Your task to perform on an android device: turn off javascript in the chrome app Image 0: 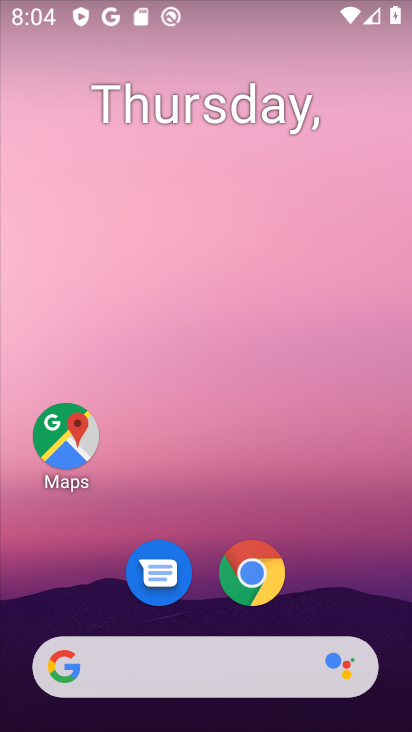
Step 0: drag from (343, 602) to (338, 201)
Your task to perform on an android device: turn off javascript in the chrome app Image 1: 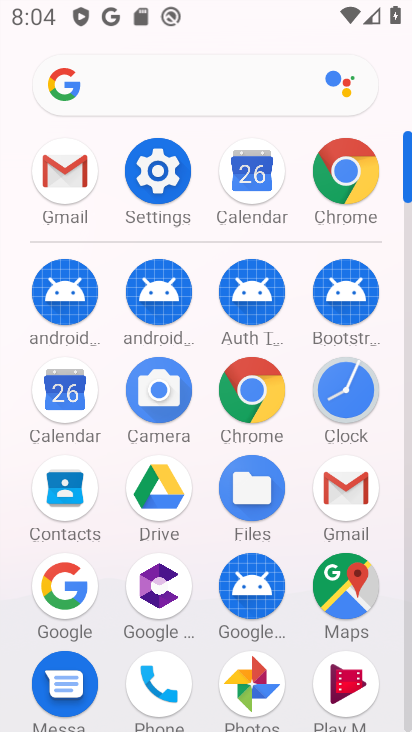
Step 1: click (253, 378)
Your task to perform on an android device: turn off javascript in the chrome app Image 2: 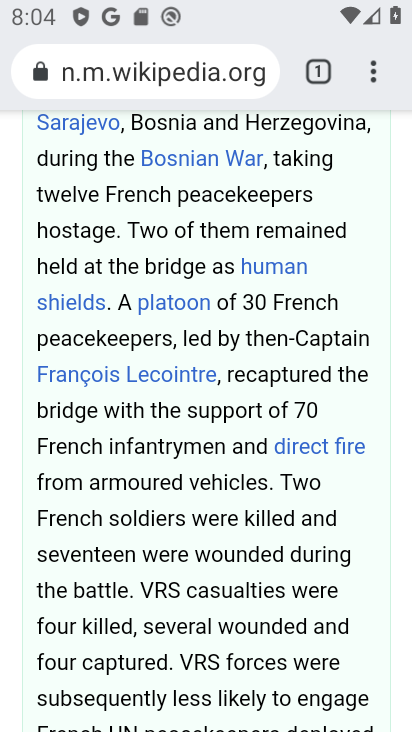
Step 2: drag from (367, 88) to (153, 560)
Your task to perform on an android device: turn off javascript in the chrome app Image 3: 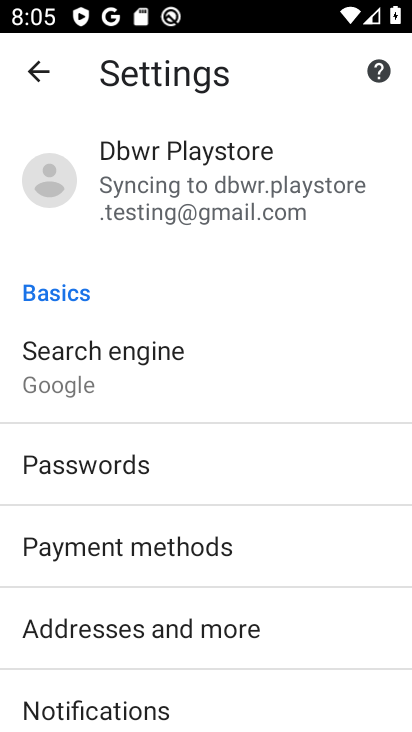
Step 3: drag from (235, 649) to (260, 312)
Your task to perform on an android device: turn off javascript in the chrome app Image 4: 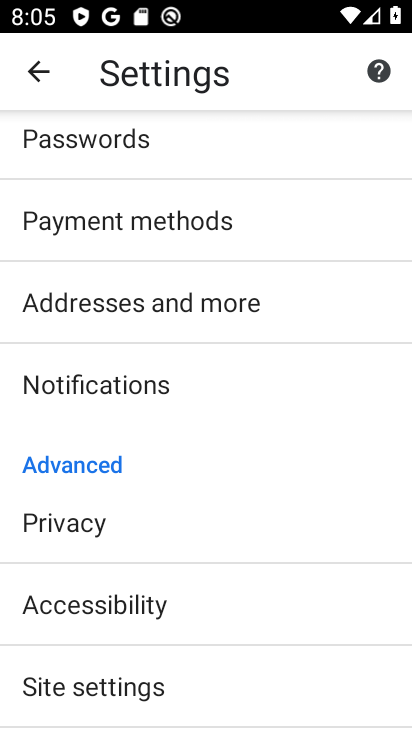
Step 4: drag from (226, 666) to (247, 277)
Your task to perform on an android device: turn off javascript in the chrome app Image 5: 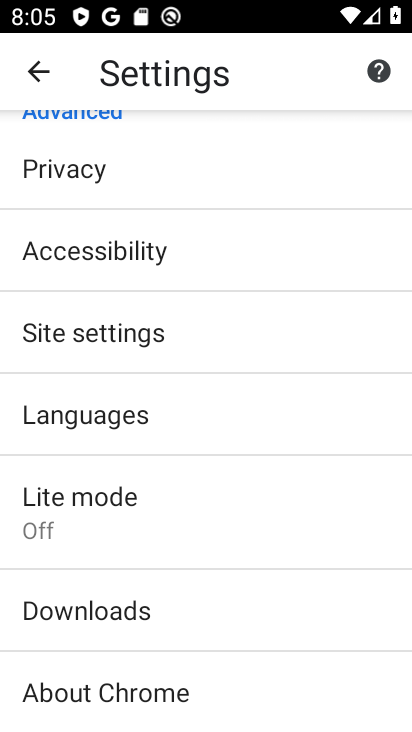
Step 5: click (194, 323)
Your task to perform on an android device: turn off javascript in the chrome app Image 6: 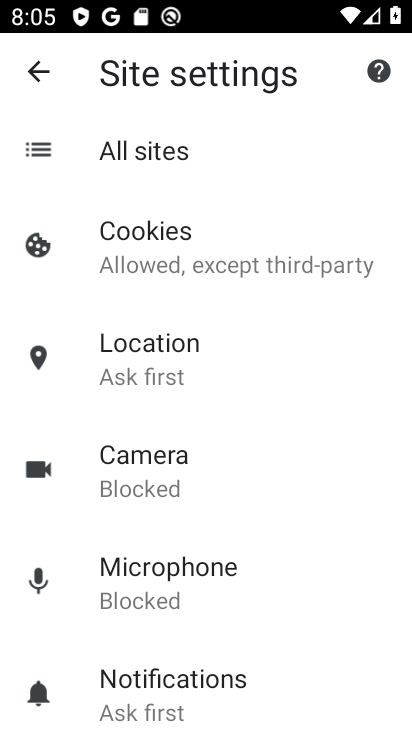
Step 6: drag from (282, 619) to (262, 275)
Your task to perform on an android device: turn off javascript in the chrome app Image 7: 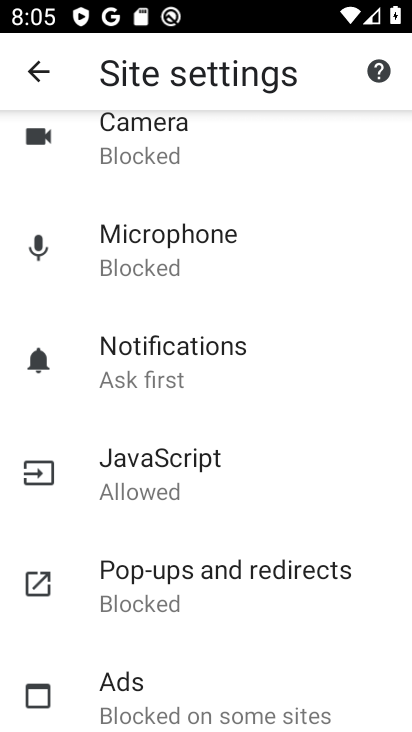
Step 7: click (217, 463)
Your task to perform on an android device: turn off javascript in the chrome app Image 8: 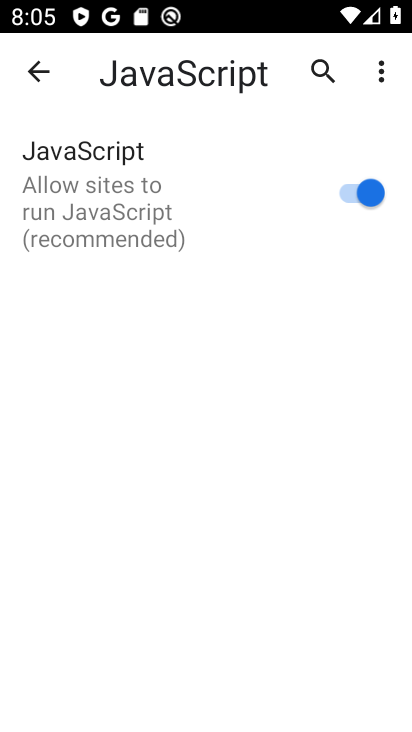
Step 8: click (352, 193)
Your task to perform on an android device: turn off javascript in the chrome app Image 9: 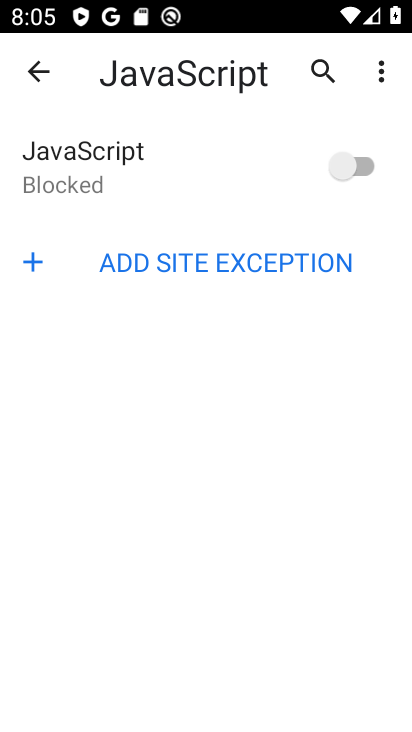
Step 9: task complete